Your task to perform on an android device: Open the map Image 0: 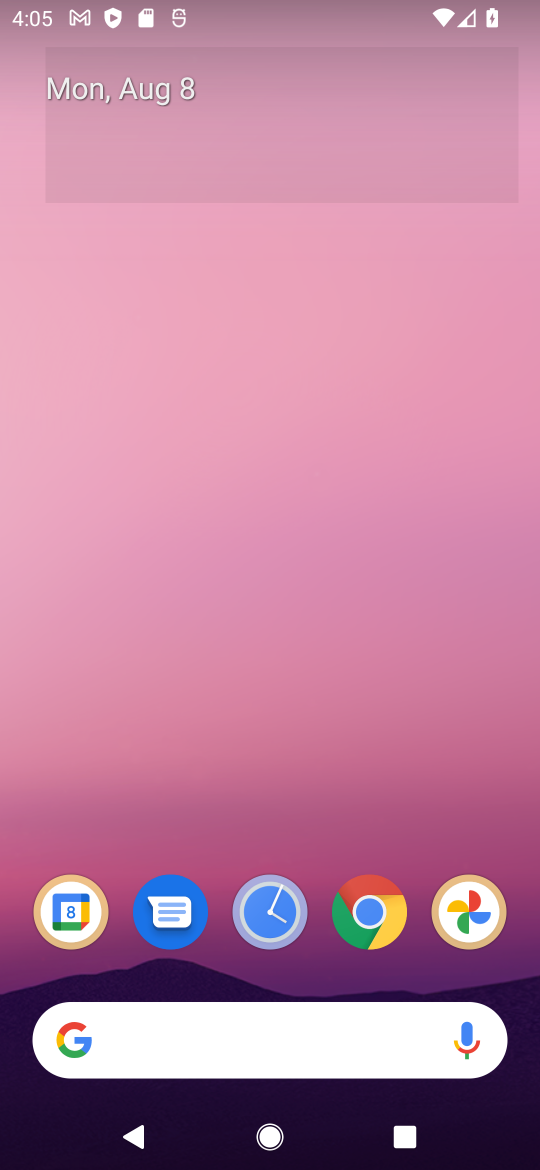
Step 0: drag from (100, 741) to (278, 230)
Your task to perform on an android device: Open the map Image 1: 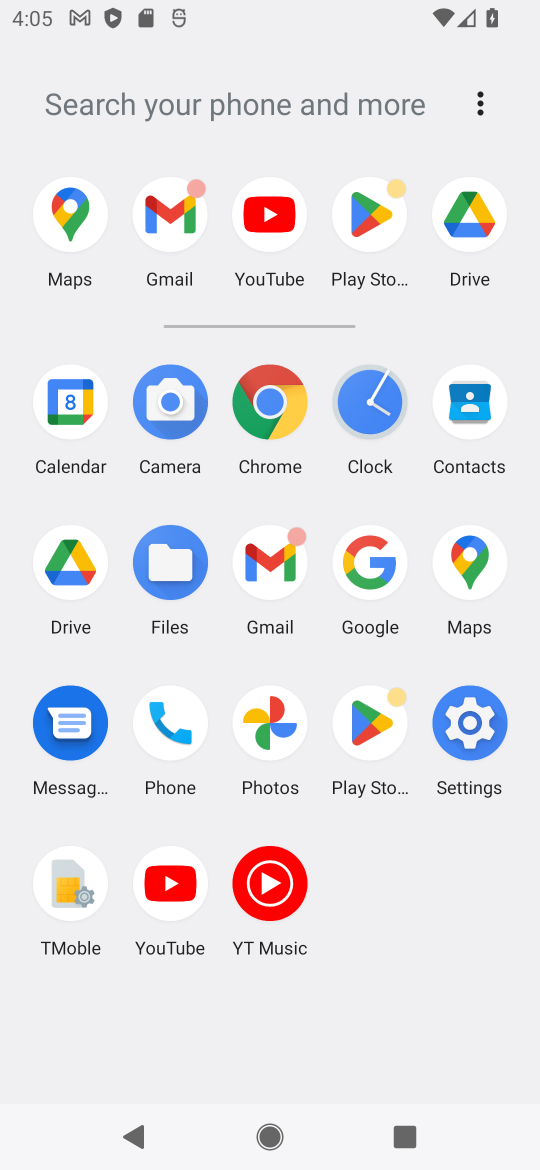
Step 1: click (56, 233)
Your task to perform on an android device: Open the map Image 2: 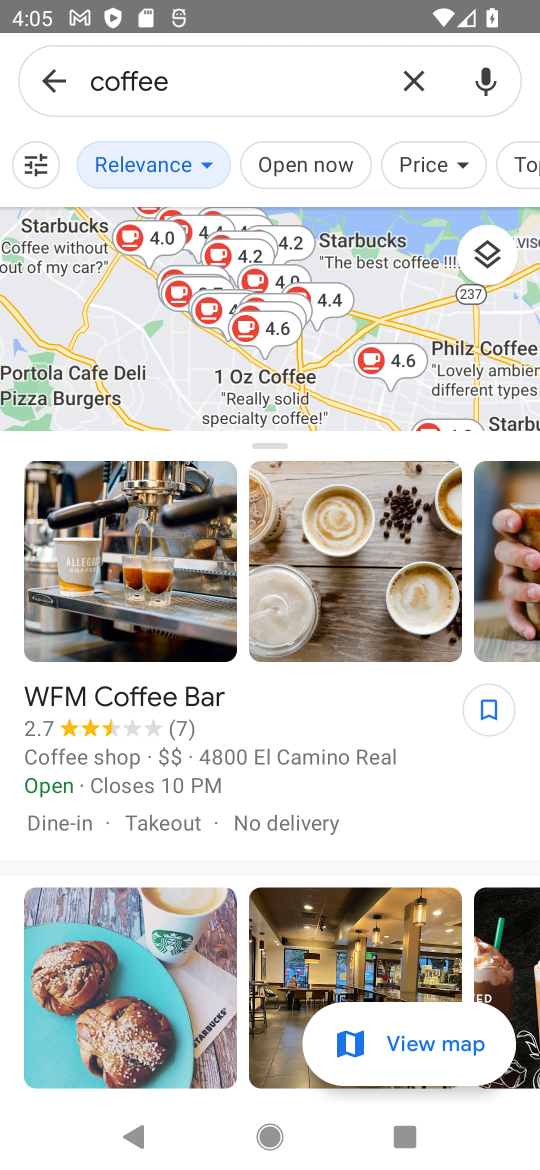
Step 2: task complete